Your task to perform on an android device: turn off notifications settings in the gmail app Image 0: 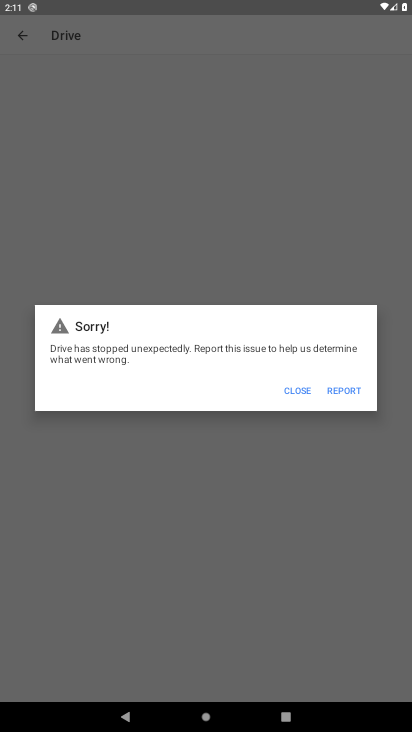
Step 0: press home button
Your task to perform on an android device: turn off notifications settings in the gmail app Image 1: 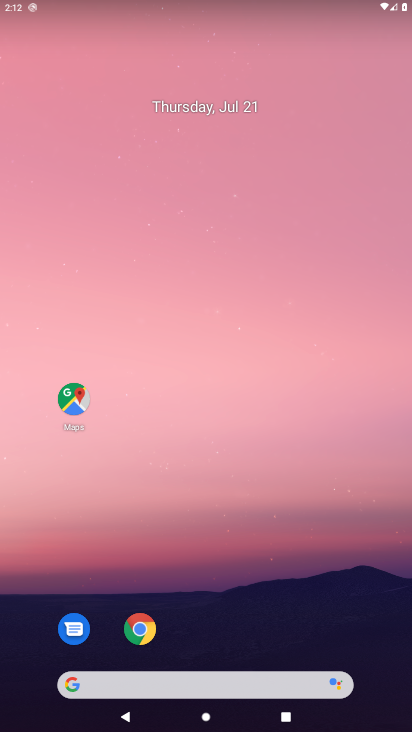
Step 1: drag from (14, 663) to (180, 115)
Your task to perform on an android device: turn off notifications settings in the gmail app Image 2: 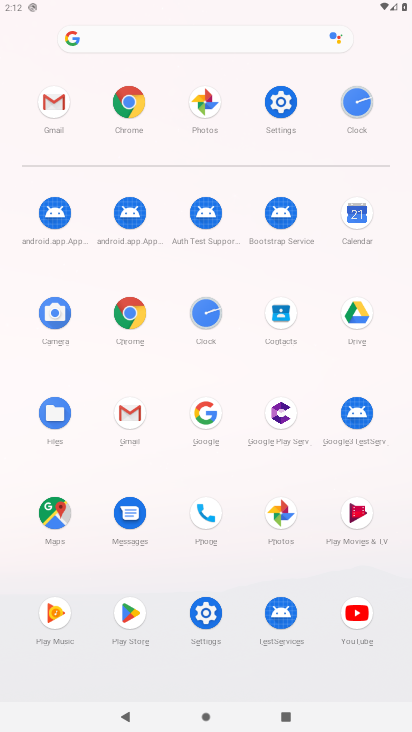
Step 2: click (135, 421)
Your task to perform on an android device: turn off notifications settings in the gmail app Image 3: 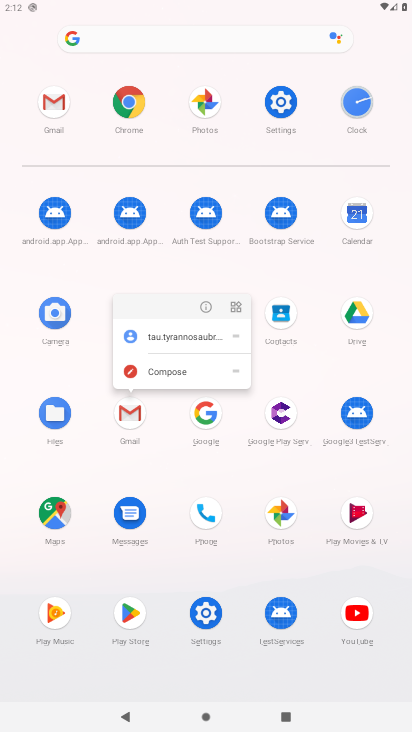
Step 3: click (137, 423)
Your task to perform on an android device: turn off notifications settings in the gmail app Image 4: 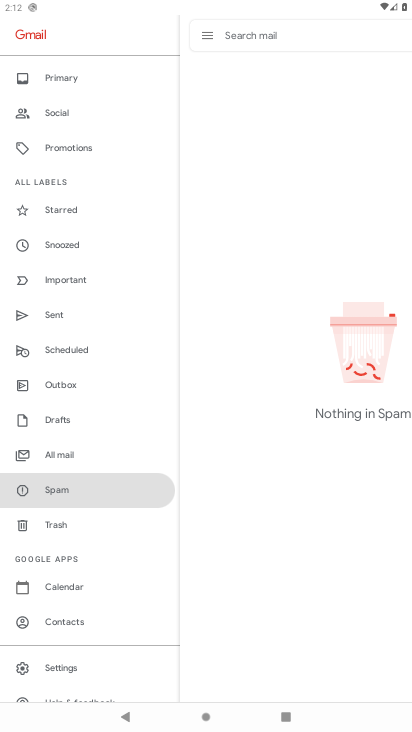
Step 4: click (47, 666)
Your task to perform on an android device: turn off notifications settings in the gmail app Image 5: 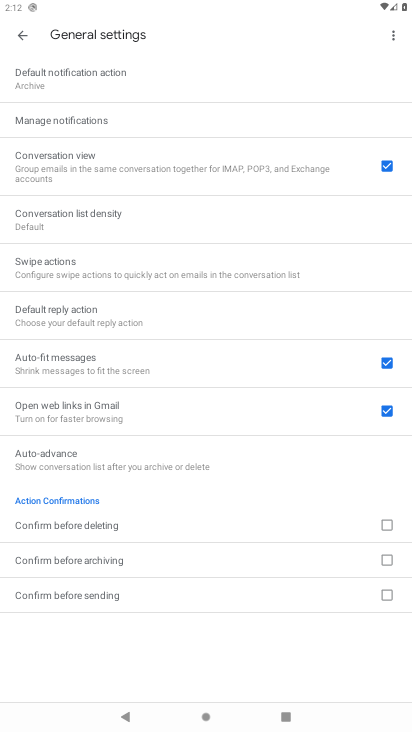
Step 5: click (67, 120)
Your task to perform on an android device: turn off notifications settings in the gmail app Image 6: 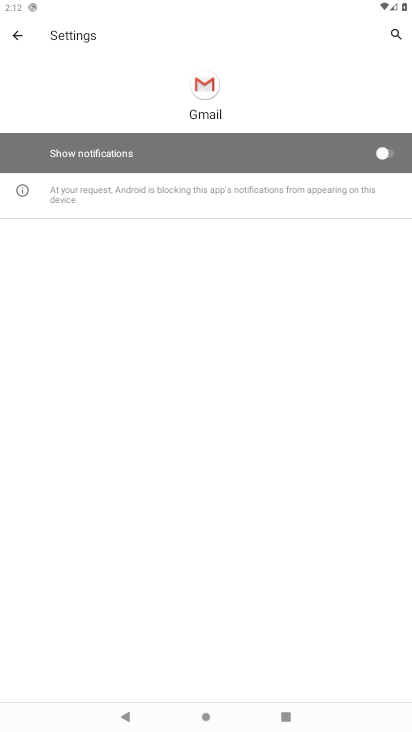
Step 6: task complete